Your task to perform on an android device: turn vacation reply on in the gmail app Image 0: 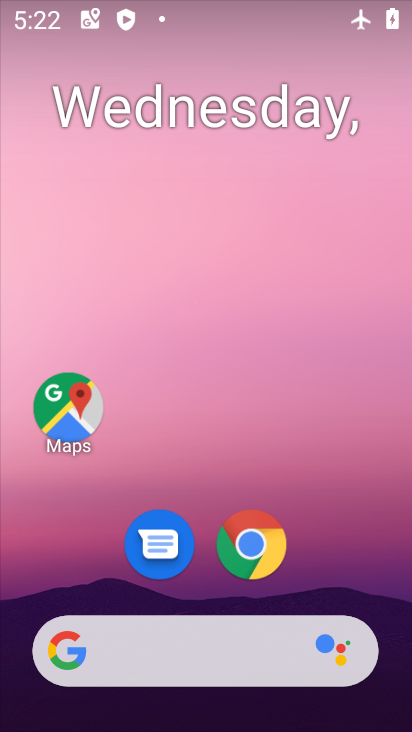
Step 0: drag from (393, 661) to (342, 164)
Your task to perform on an android device: turn vacation reply on in the gmail app Image 1: 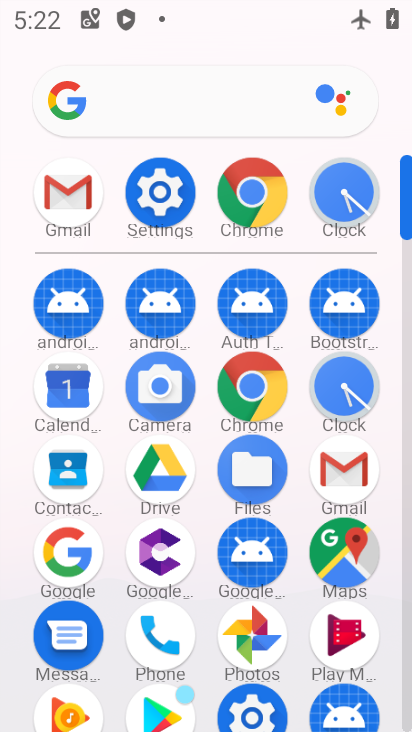
Step 1: click (360, 474)
Your task to perform on an android device: turn vacation reply on in the gmail app Image 2: 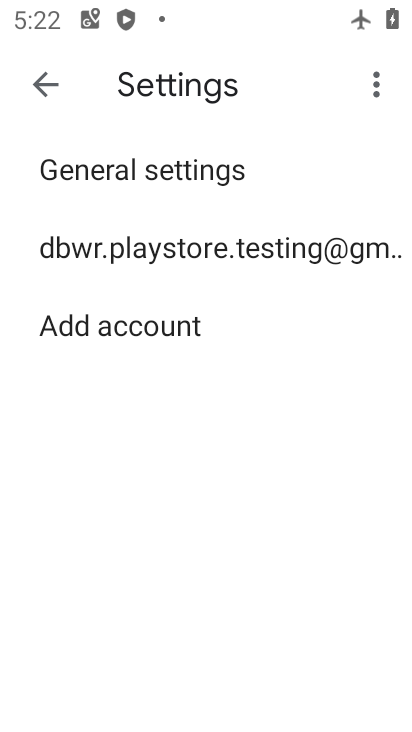
Step 2: click (149, 243)
Your task to perform on an android device: turn vacation reply on in the gmail app Image 3: 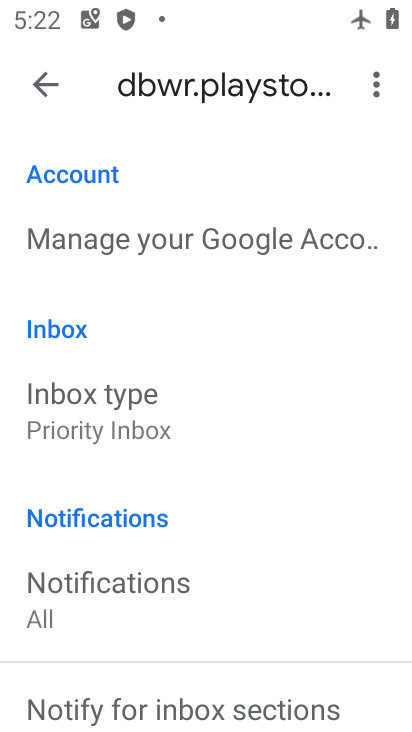
Step 3: drag from (271, 591) to (208, 227)
Your task to perform on an android device: turn vacation reply on in the gmail app Image 4: 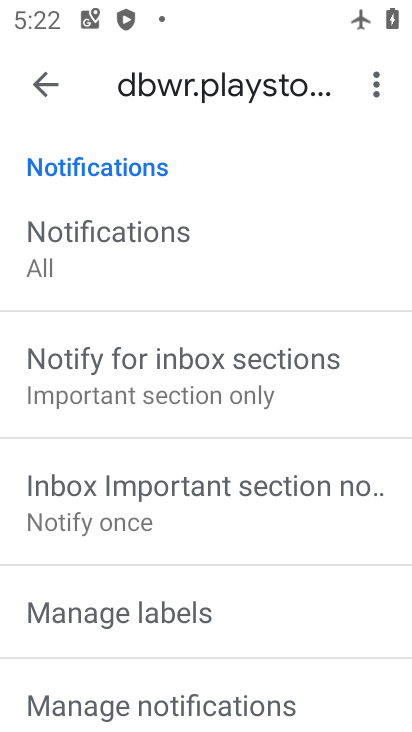
Step 4: drag from (252, 638) to (243, 279)
Your task to perform on an android device: turn vacation reply on in the gmail app Image 5: 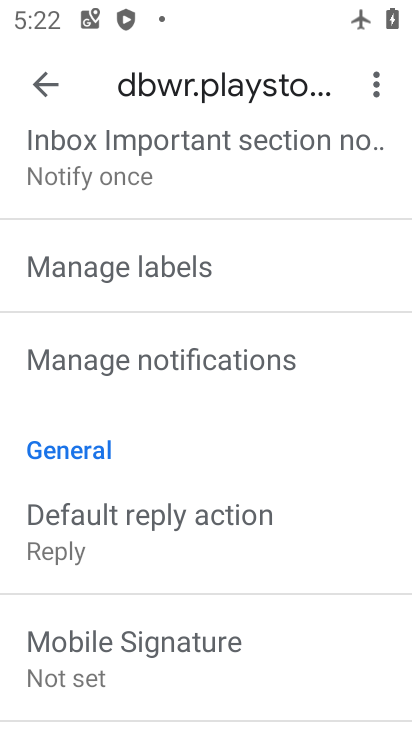
Step 5: drag from (289, 646) to (297, 352)
Your task to perform on an android device: turn vacation reply on in the gmail app Image 6: 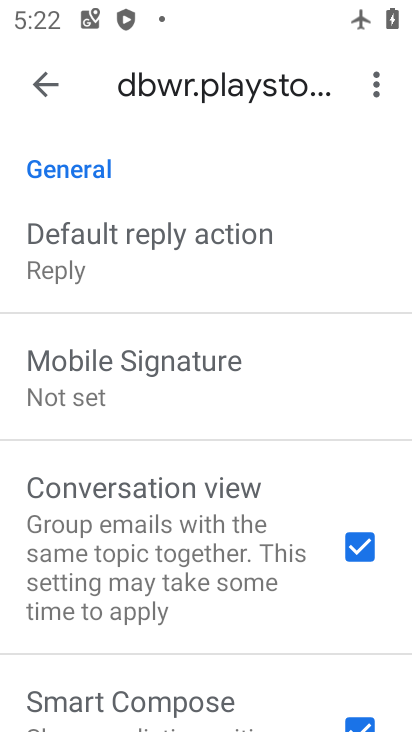
Step 6: drag from (223, 656) to (231, 370)
Your task to perform on an android device: turn vacation reply on in the gmail app Image 7: 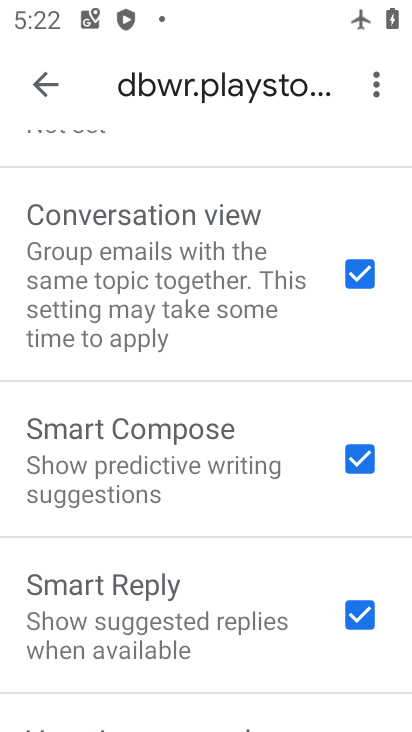
Step 7: drag from (234, 657) to (252, 373)
Your task to perform on an android device: turn vacation reply on in the gmail app Image 8: 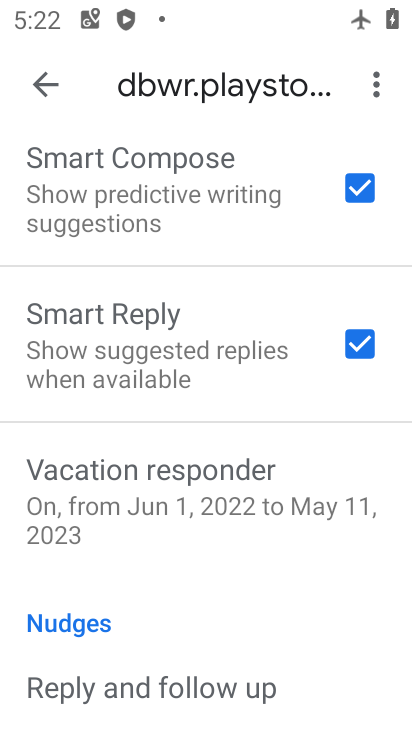
Step 8: click (145, 490)
Your task to perform on an android device: turn vacation reply on in the gmail app Image 9: 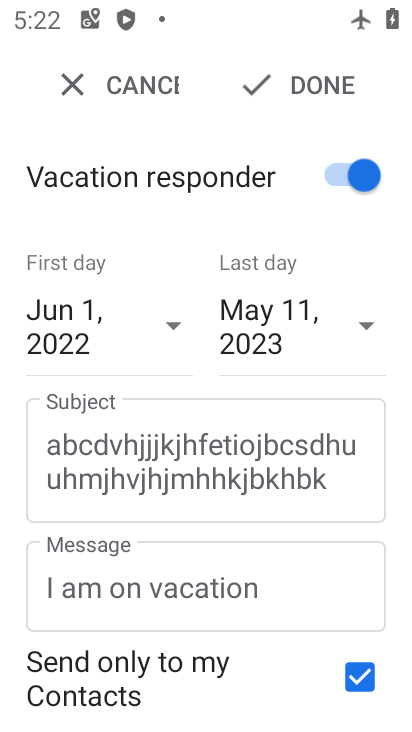
Step 9: task complete